Your task to perform on an android device: open app "Grab" Image 0: 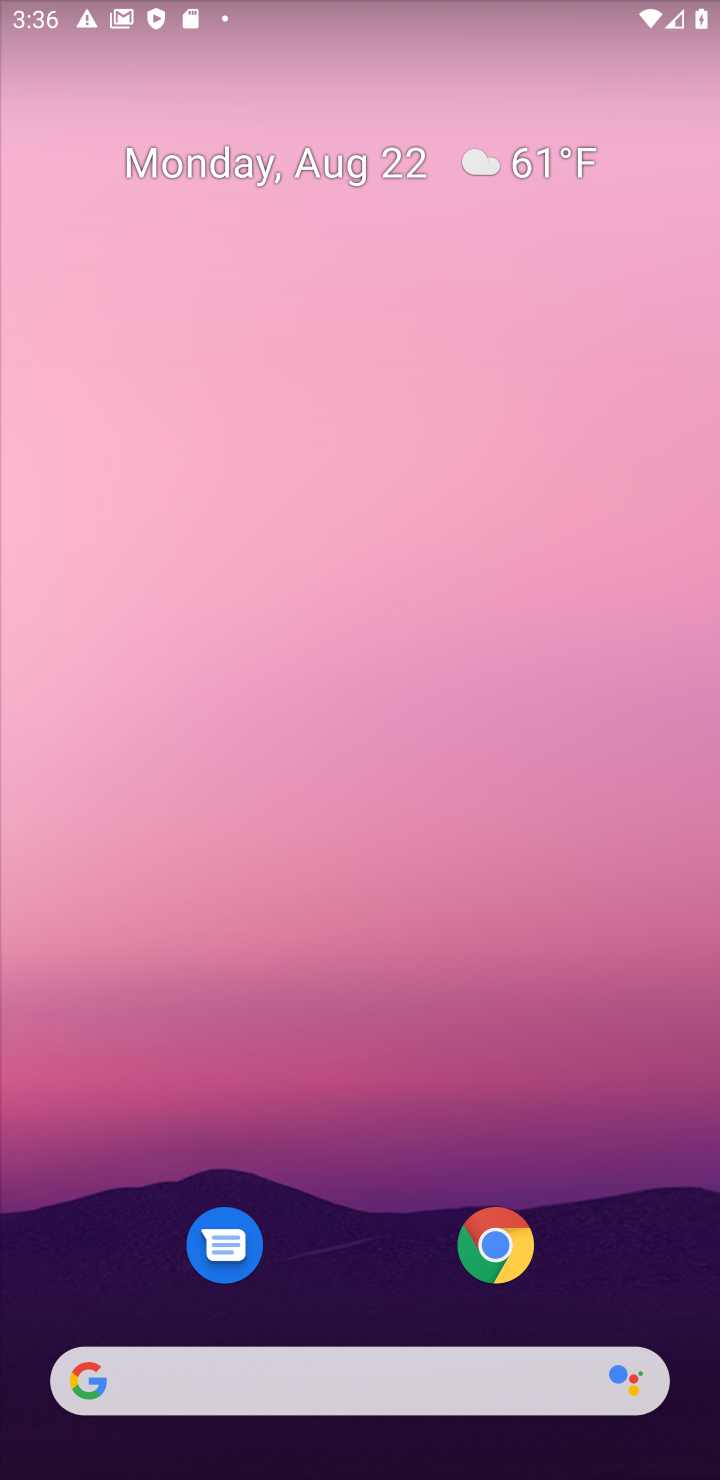
Step 0: press home button
Your task to perform on an android device: open app "Grab" Image 1: 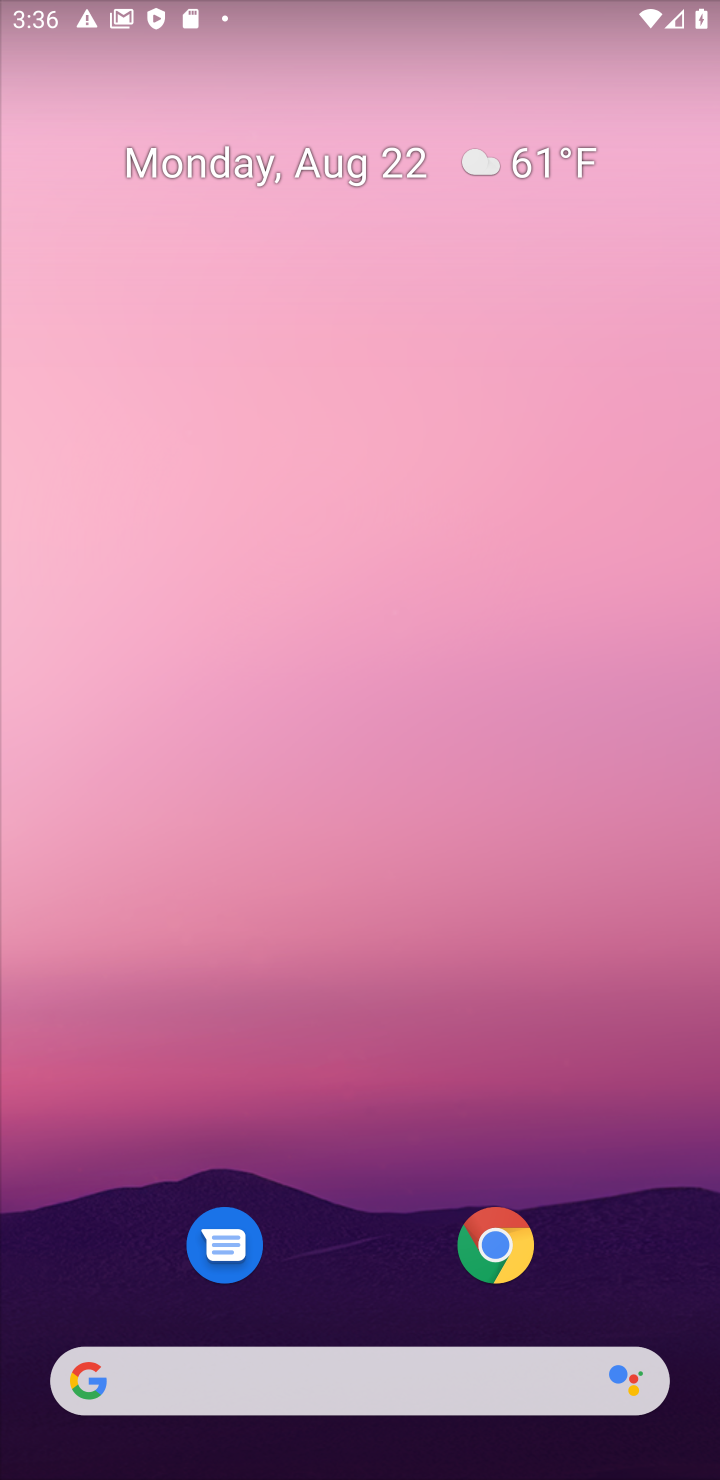
Step 1: drag from (627, 1180) to (662, 173)
Your task to perform on an android device: open app "Grab" Image 2: 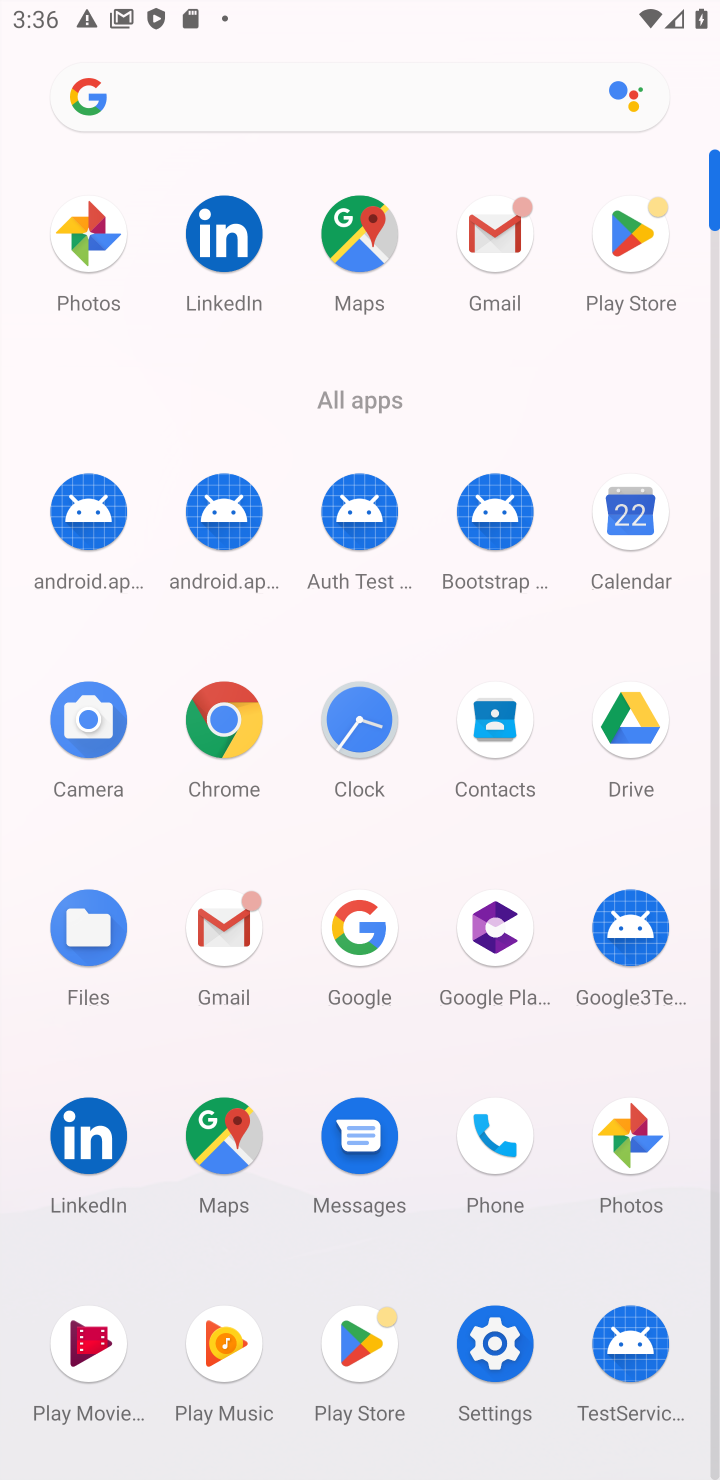
Step 2: click (632, 231)
Your task to perform on an android device: open app "Grab" Image 3: 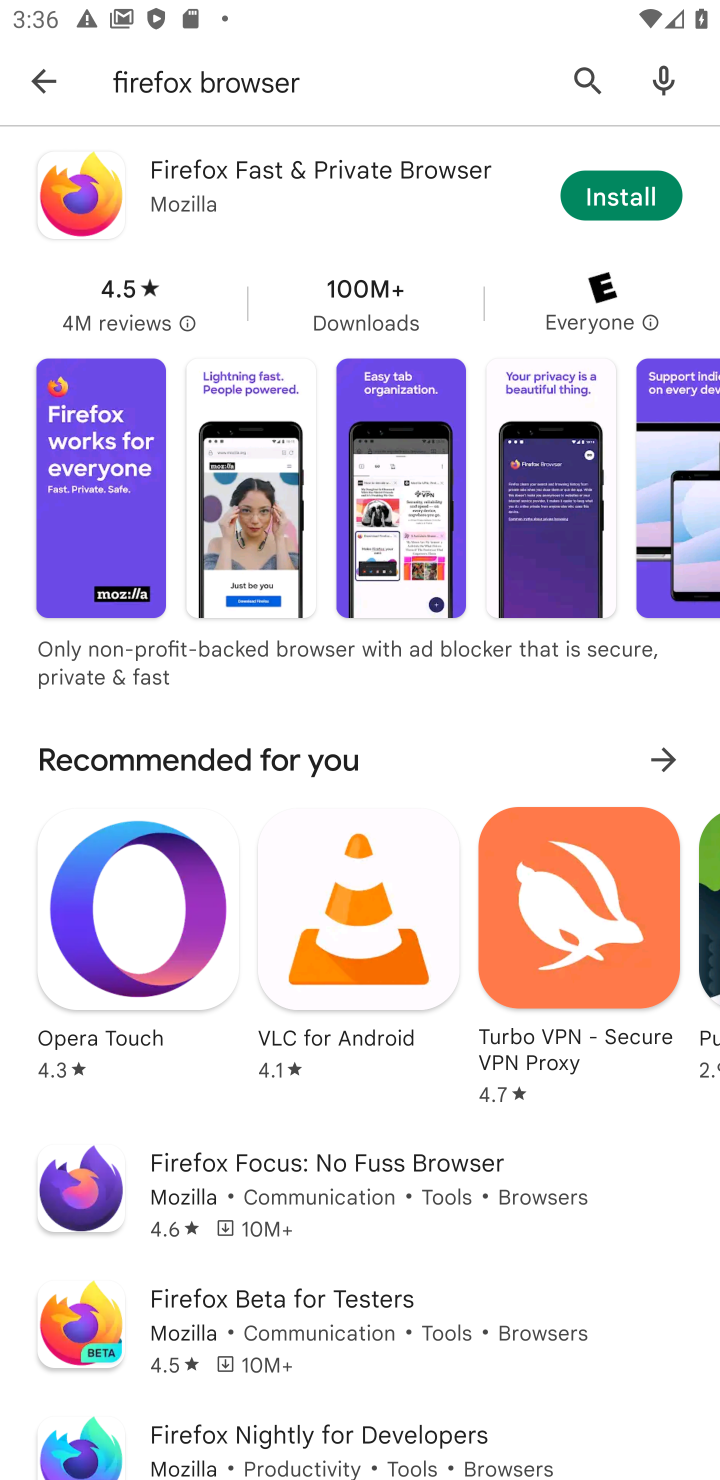
Step 3: press back button
Your task to perform on an android device: open app "Grab" Image 4: 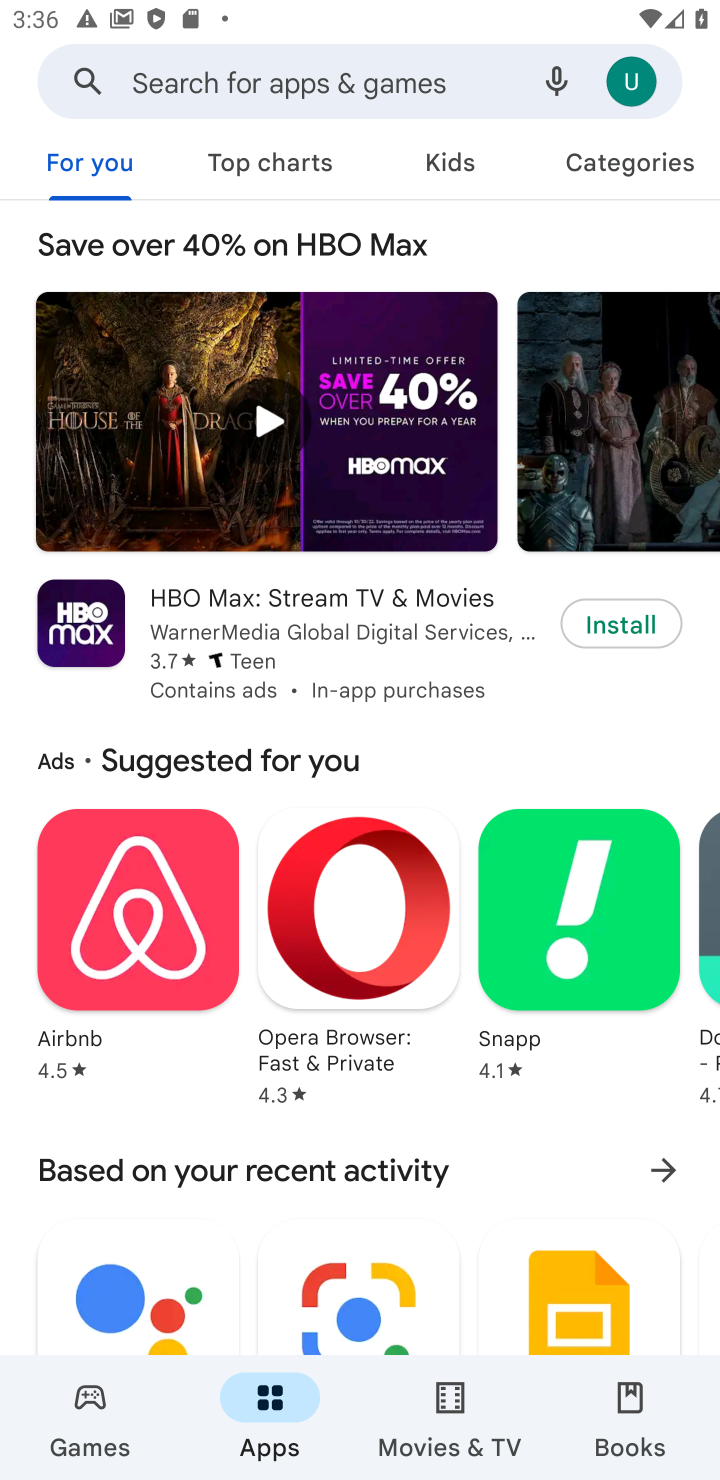
Step 4: click (365, 85)
Your task to perform on an android device: open app "Grab" Image 5: 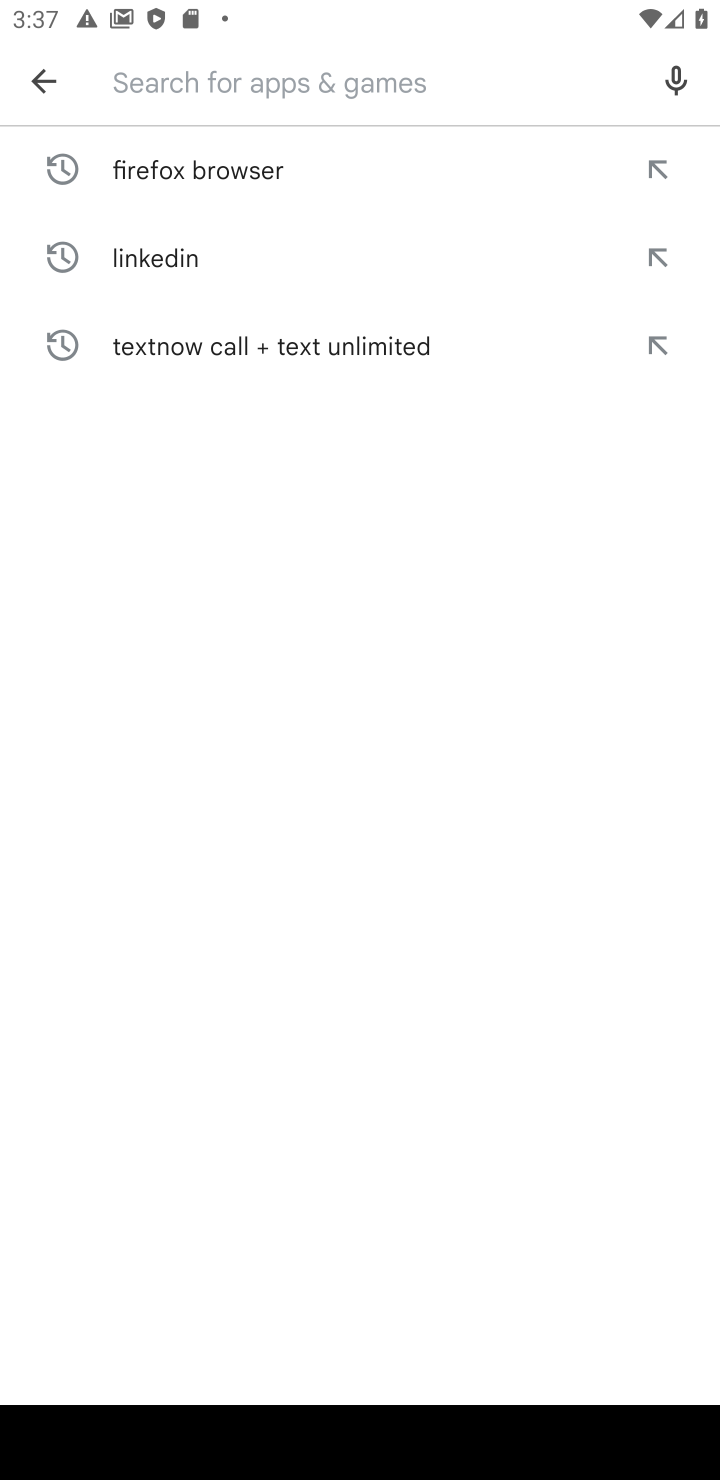
Step 5: press enter
Your task to perform on an android device: open app "Grab" Image 6: 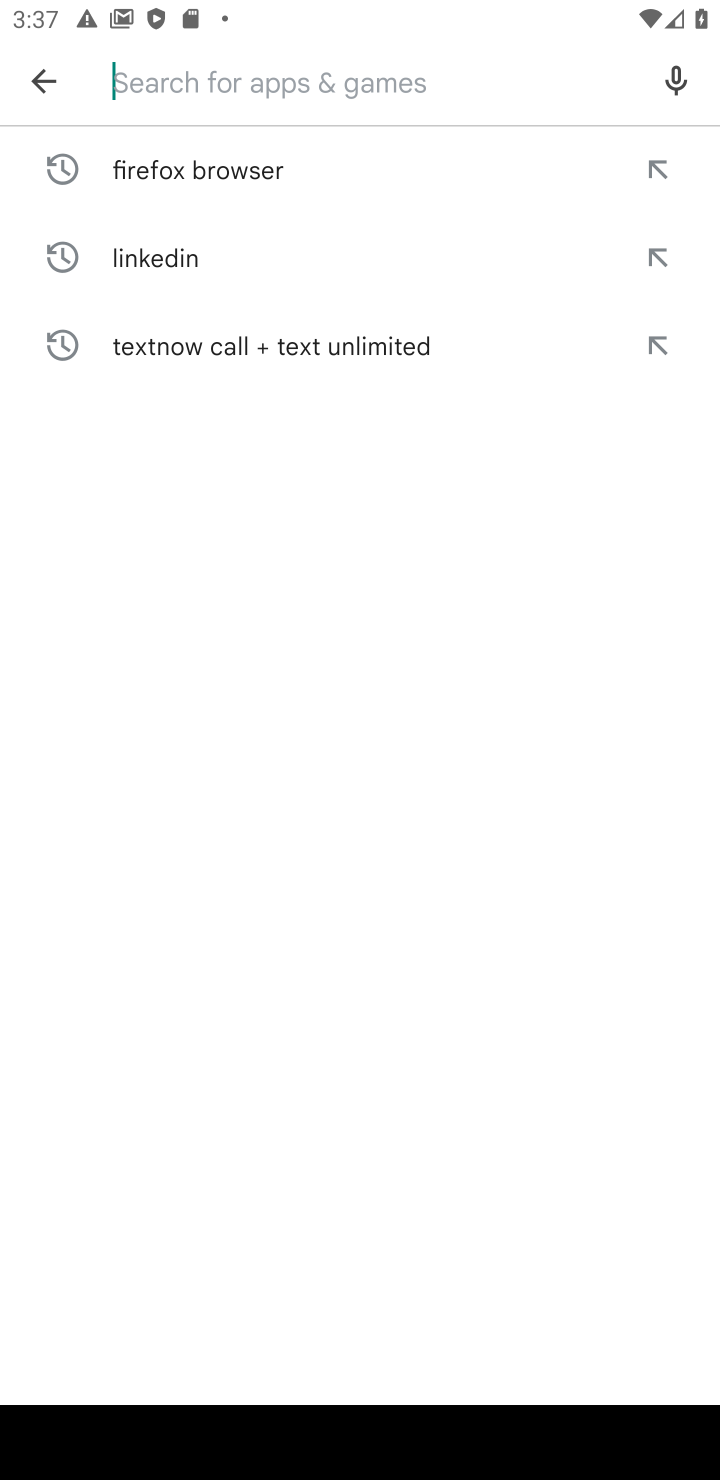
Step 6: type "grab"
Your task to perform on an android device: open app "Grab" Image 7: 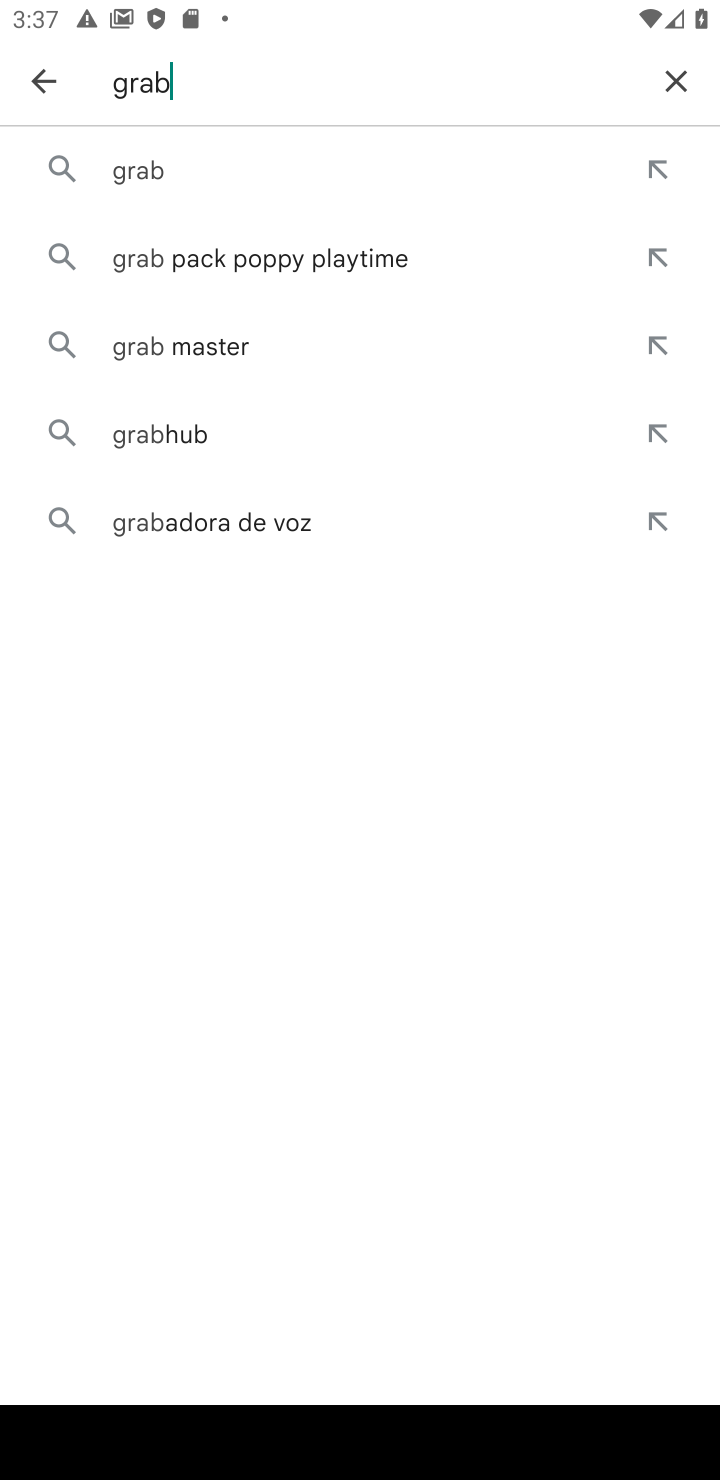
Step 7: click (311, 178)
Your task to perform on an android device: open app "Grab" Image 8: 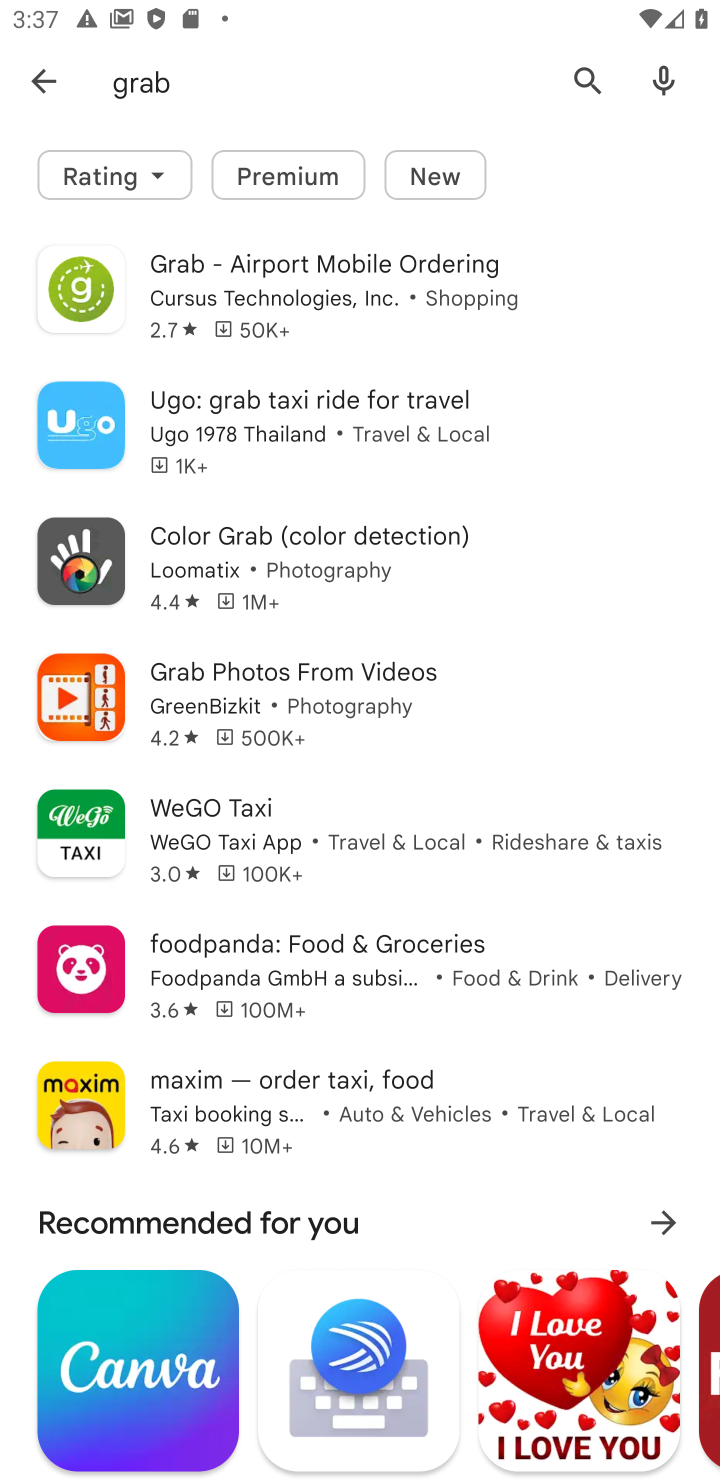
Step 8: task complete